Your task to perform on an android device: change timer sound Image 0: 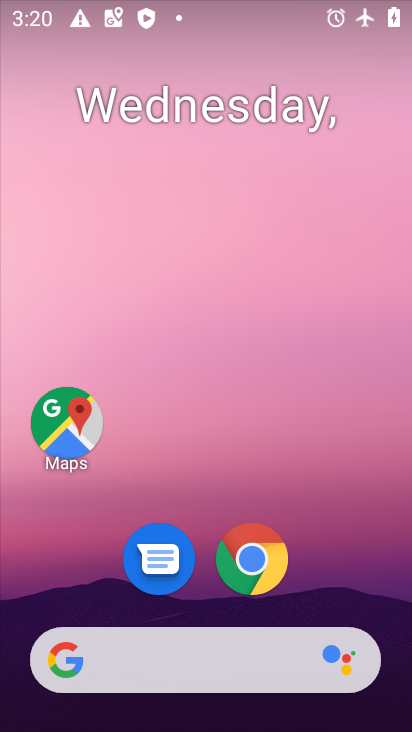
Step 0: drag from (206, 605) to (238, 27)
Your task to perform on an android device: change timer sound Image 1: 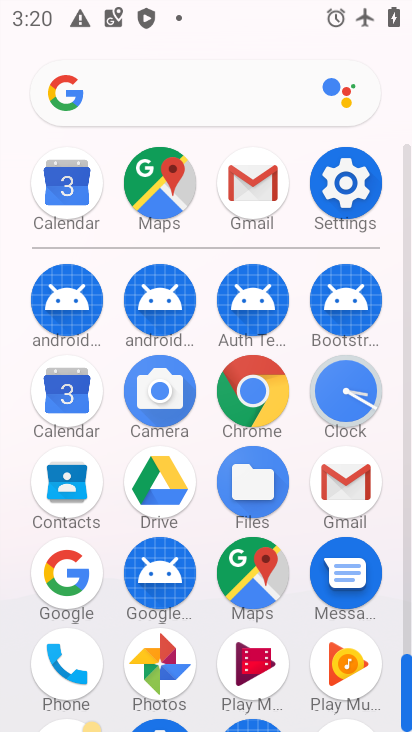
Step 1: click (341, 394)
Your task to perform on an android device: change timer sound Image 2: 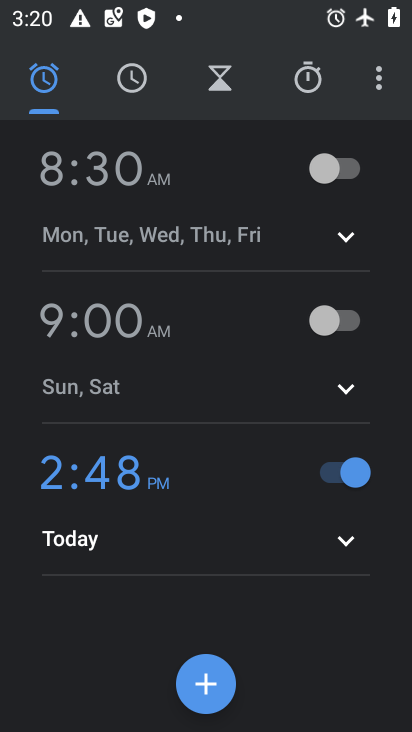
Step 2: click (377, 89)
Your task to perform on an android device: change timer sound Image 3: 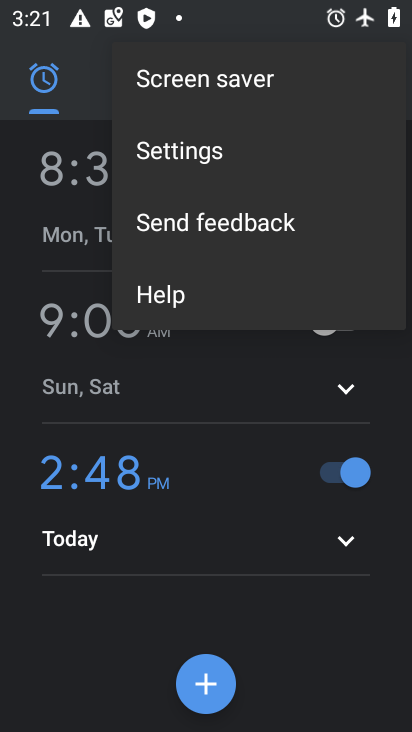
Step 3: click (178, 144)
Your task to perform on an android device: change timer sound Image 4: 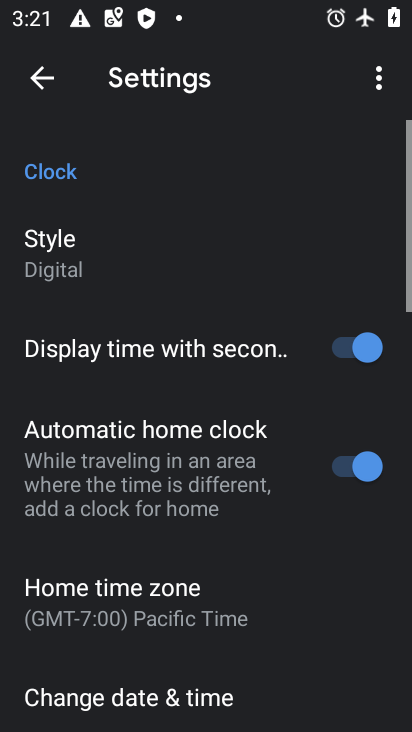
Step 4: drag from (157, 614) to (168, 363)
Your task to perform on an android device: change timer sound Image 5: 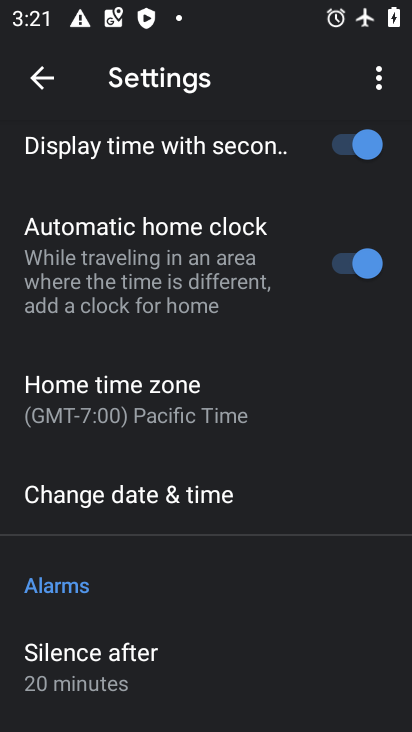
Step 5: drag from (124, 612) to (145, 330)
Your task to perform on an android device: change timer sound Image 6: 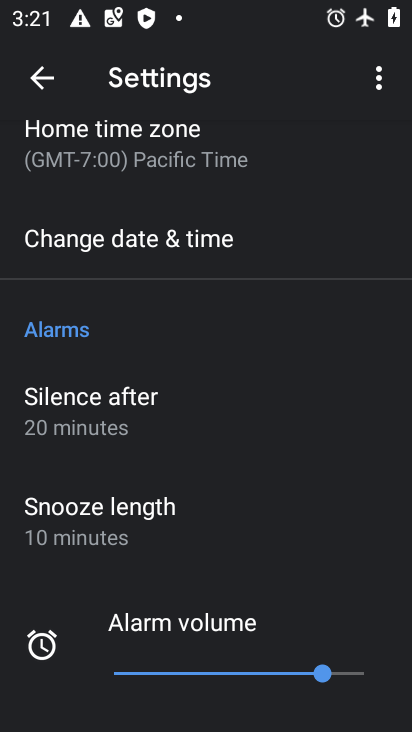
Step 6: drag from (175, 622) to (181, 265)
Your task to perform on an android device: change timer sound Image 7: 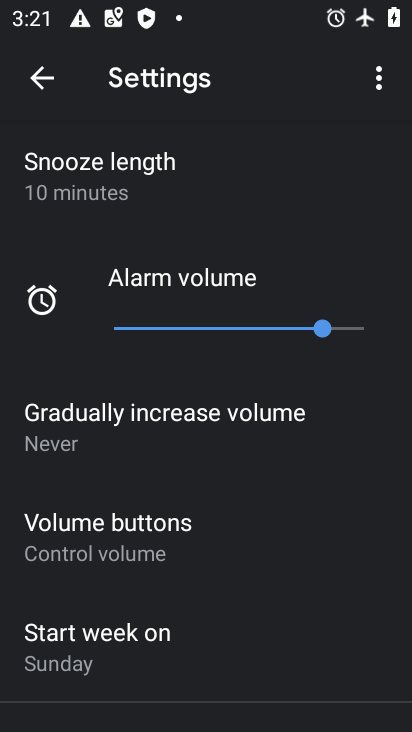
Step 7: drag from (194, 668) to (192, 355)
Your task to perform on an android device: change timer sound Image 8: 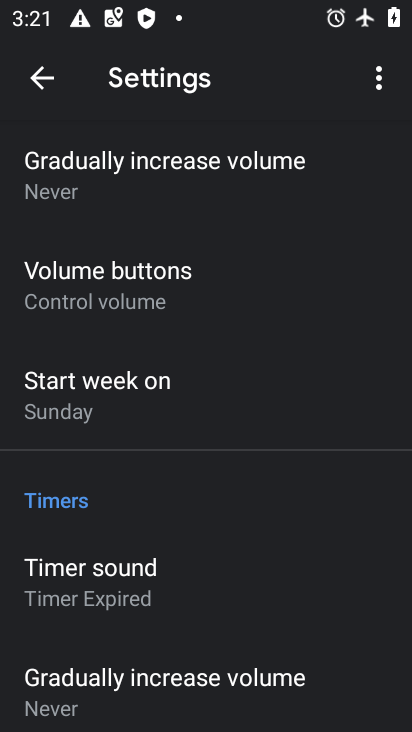
Step 8: click (105, 572)
Your task to perform on an android device: change timer sound Image 9: 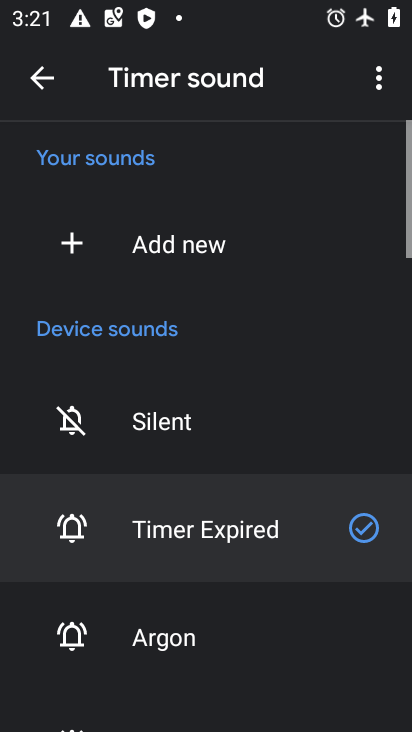
Step 9: click (154, 645)
Your task to perform on an android device: change timer sound Image 10: 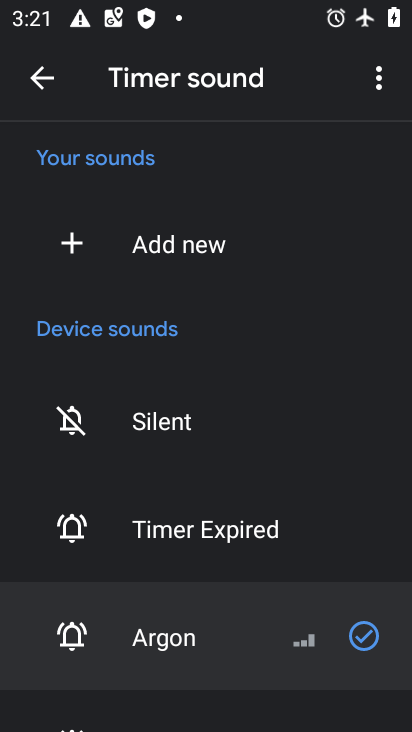
Step 10: task complete